Your task to perform on an android device: Open maps Image 0: 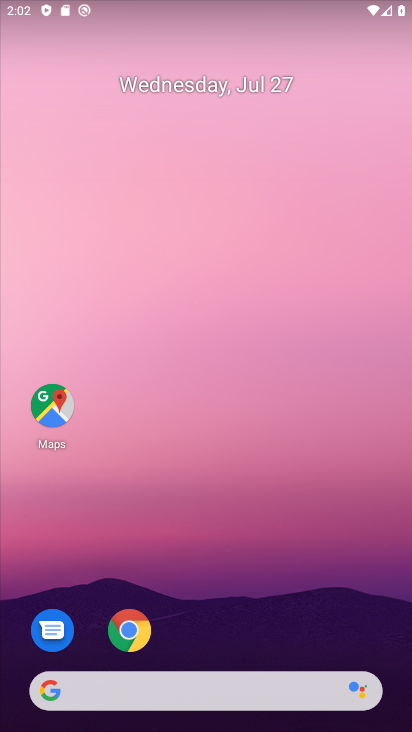
Step 0: drag from (249, 698) to (224, 79)
Your task to perform on an android device: Open maps Image 1: 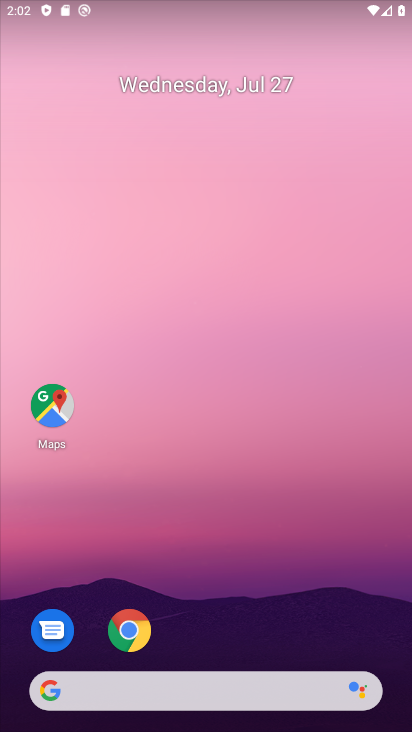
Step 1: drag from (295, 526) to (207, 121)
Your task to perform on an android device: Open maps Image 2: 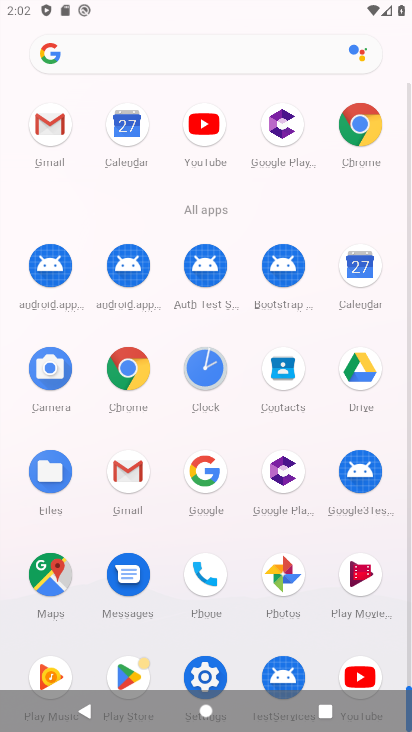
Step 2: drag from (196, 525) to (119, 291)
Your task to perform on an android device: Open maps Image 3: 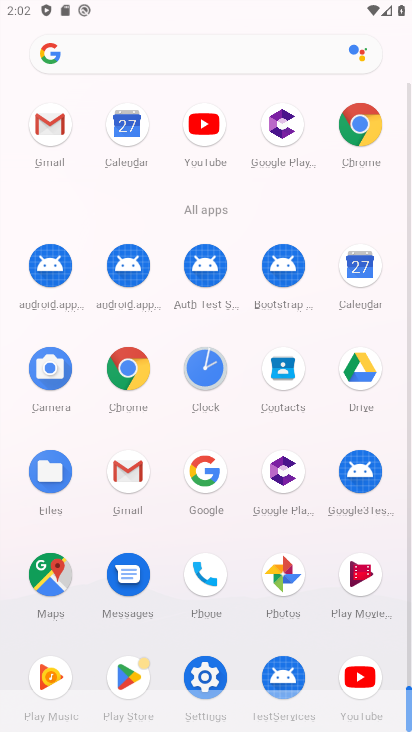
Step 3: click (60, 572)
Your task to perform on an android device: Open maps Image 4: 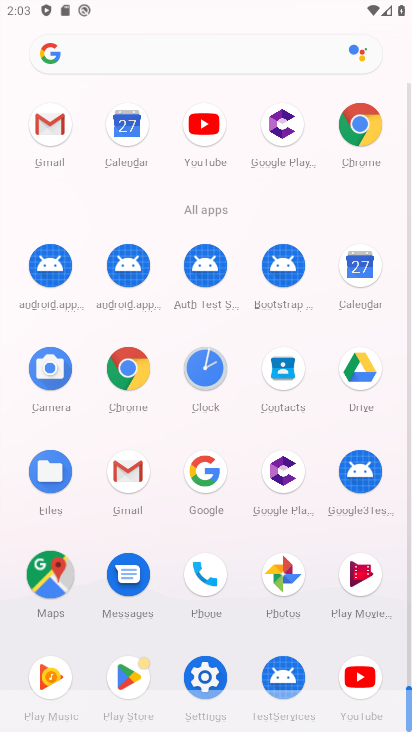
Step 4: click (52, 574)
Your task to perform on an android device: Open maps Image 5: 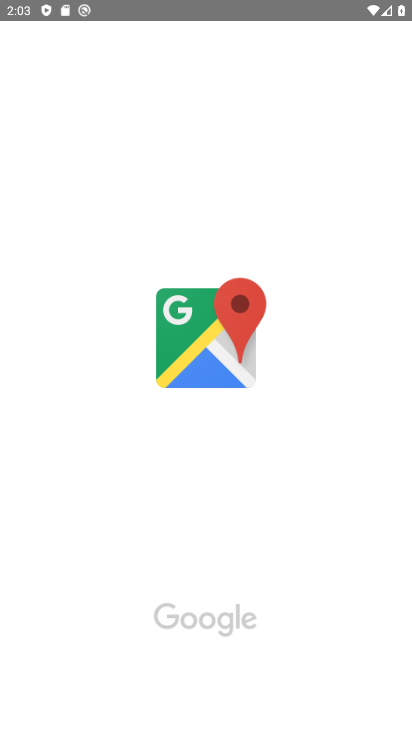
Step 5: click (62, 578)
Your task to perform on an android device: Open maps Image 6: 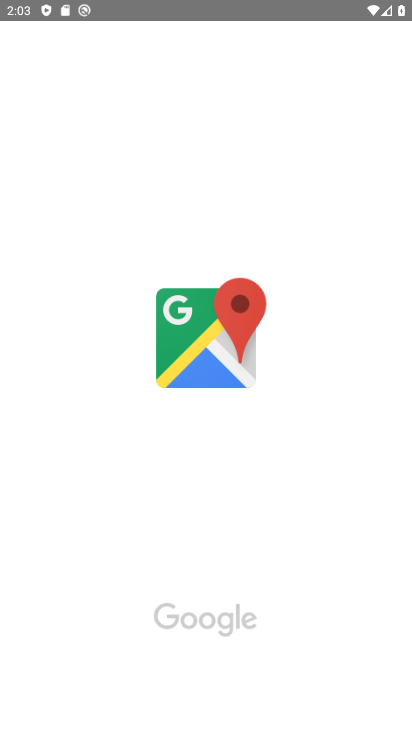
Step 6: click (207, 347)
Your task to perform on an android device: Open maps Image 7: 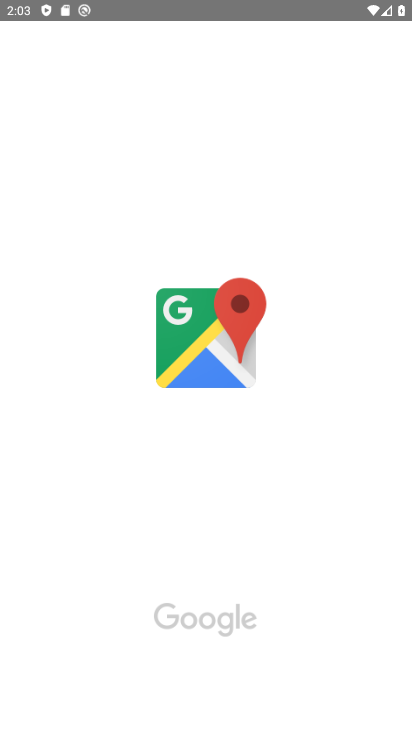
Step 7: click (209, 349)
Your task to perform on an android device: Open maps Image 8: 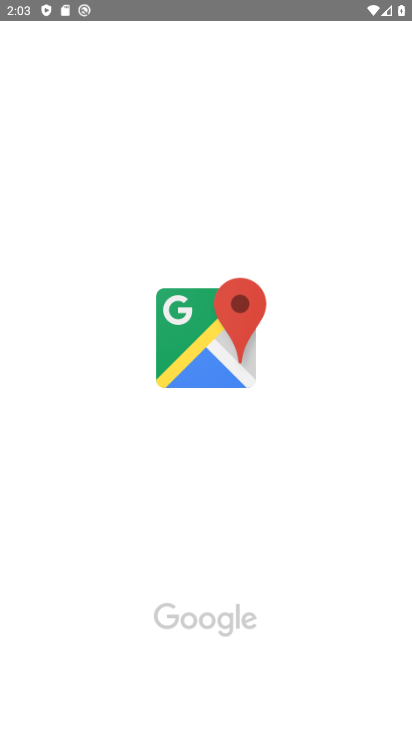
Step 8: click (196, 337)
Your task to perform on an android device: Open maps Image 9: 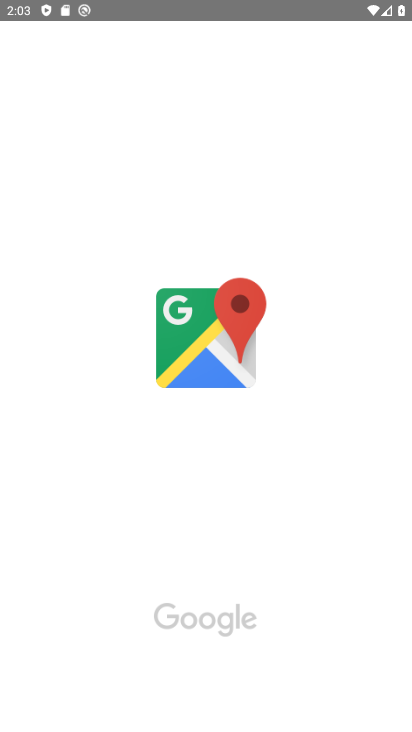
Step 9: click (196, 333)
Your task to perform on an android device: Open maps Image 10: 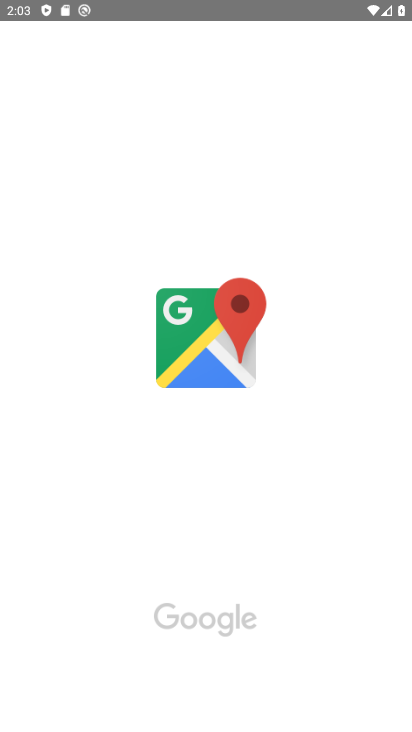
Step 10: click (200, 333)
Your task to perform on an android device: Open maps Image 11: 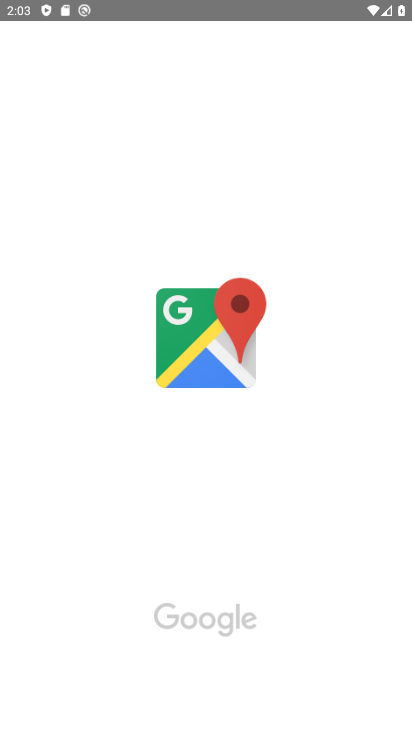
Step 11: click (204, 335)
Your task to perform on an android device: Open maps Image 12: 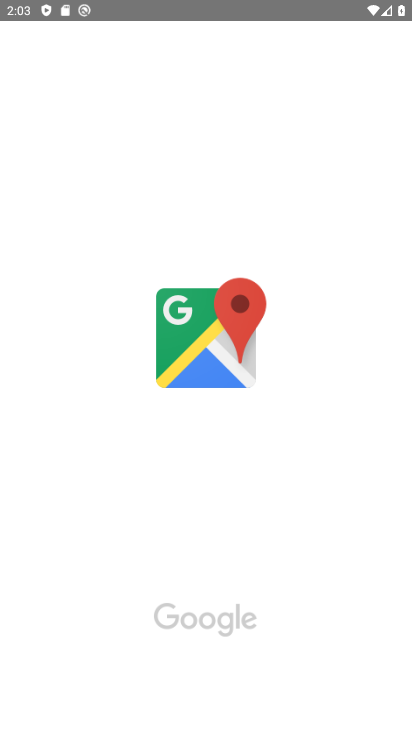
Step 12: click (204, 335)
Your task to perform on an android device: Open maps Image 13: 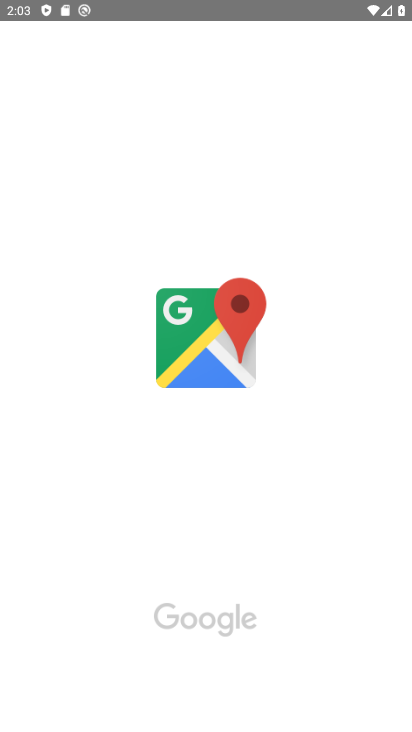
Step 13: click (205, 330)
Your task to perform on an android device: Open maps Image 14: 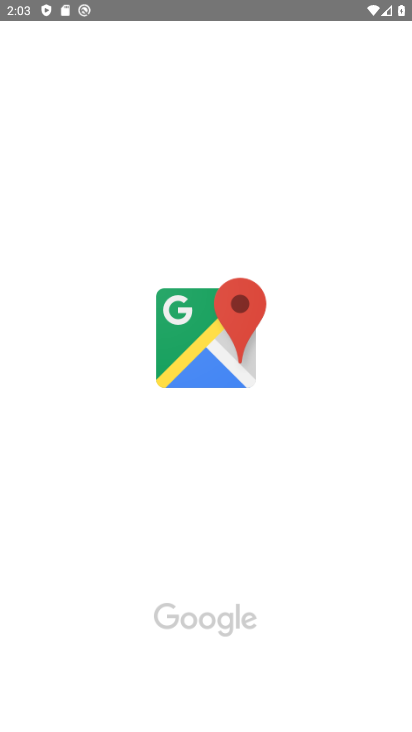
Step 14: click (206, 332)
Your task to perform on an android device: Open maps Image 15: 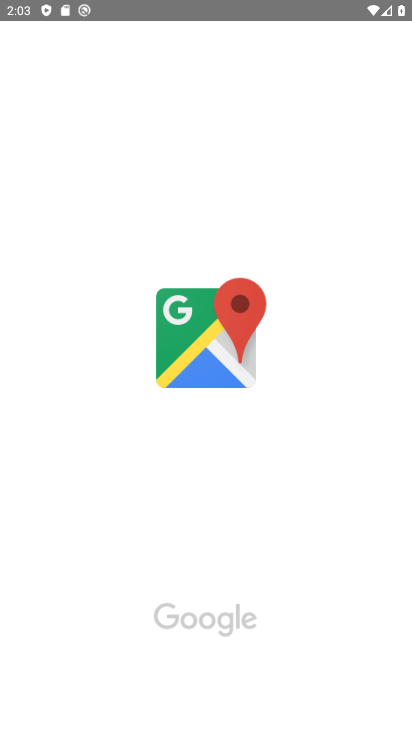
Step 15: click (218, 332)
Your task to perform on an android device: Open maps Image 16: 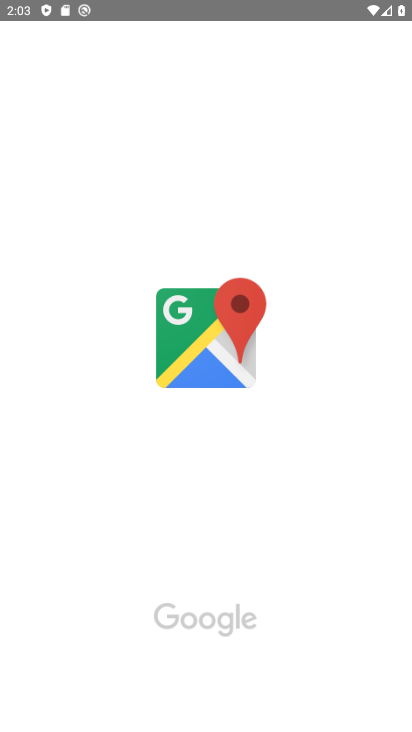
Step 16: click (213, 329)
Your task to perform on an android device: Open maps Image 17: 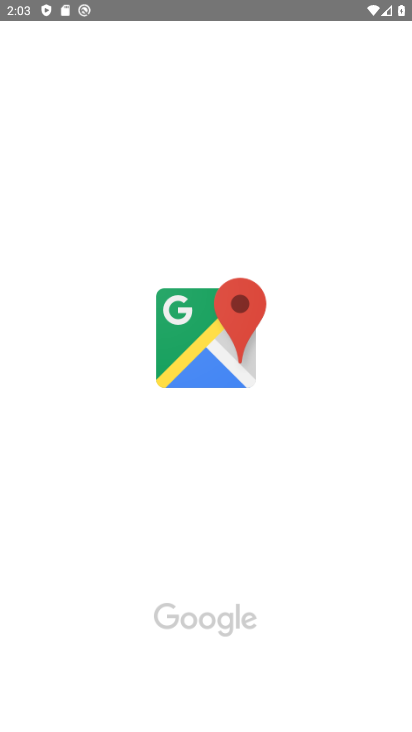
Step 17: task complete